Your task to perform on an android device: Open Youtube and go to the subscriptions tab Image 0: 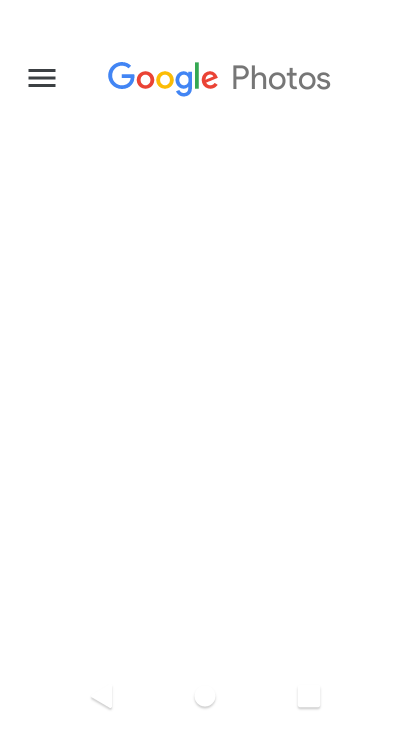
Step 0: press back button
Your task to perform on an android device: Open Youtube and go to the subscriptions tab Image 1: 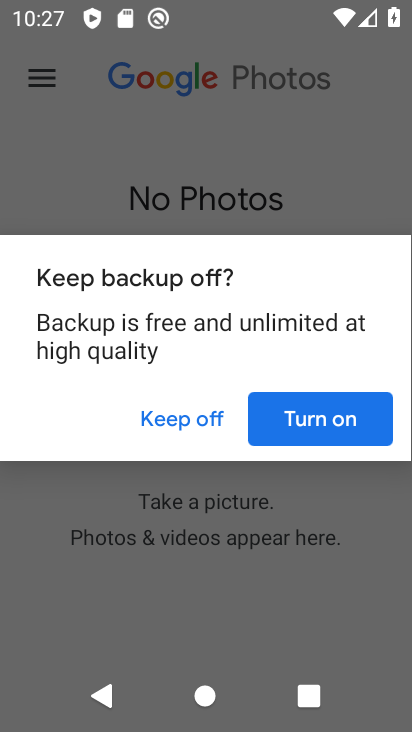
Step 1: press back button
Your task to perform on an android device: Open Youtube and go to the subscriptions tab Image 2: 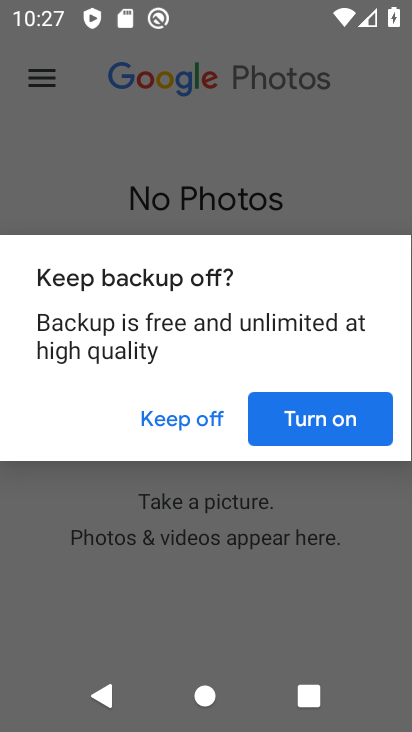
Step 2: press home button
Your task to perform on an android device: Open Youtube and go to the subscriptions tab Image 3: 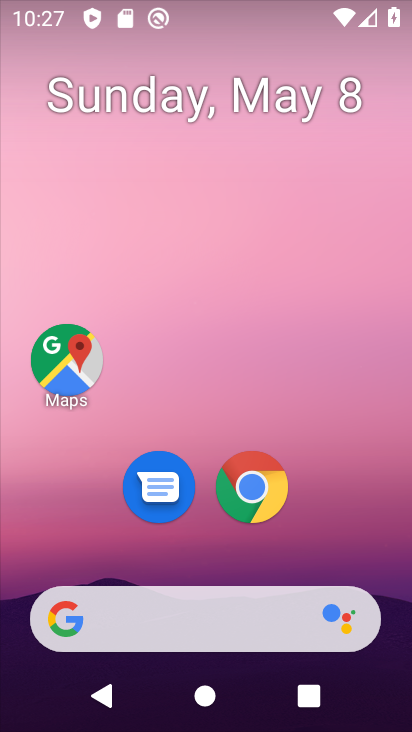
Step 3: drag from (157, 537) to (246, 5)
Your task to perform on an android device: Open Youtube and go to the subscriptions tab Image 4: 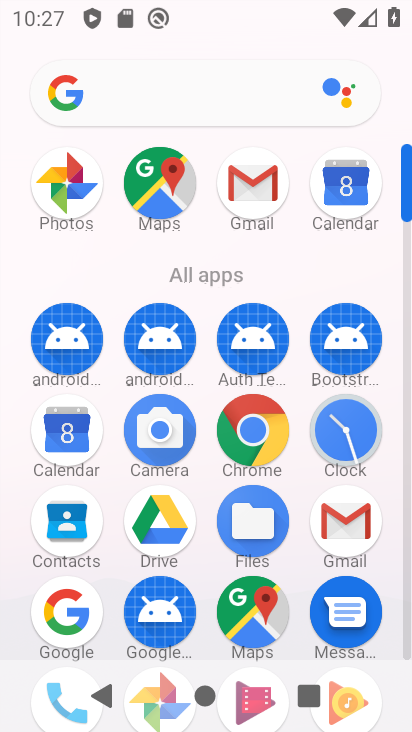
Step 4: drag from (213, 573) to (268, 78)
Your task to perform on an android device: Open Youtube and go to the subscriptions tab Image 5: 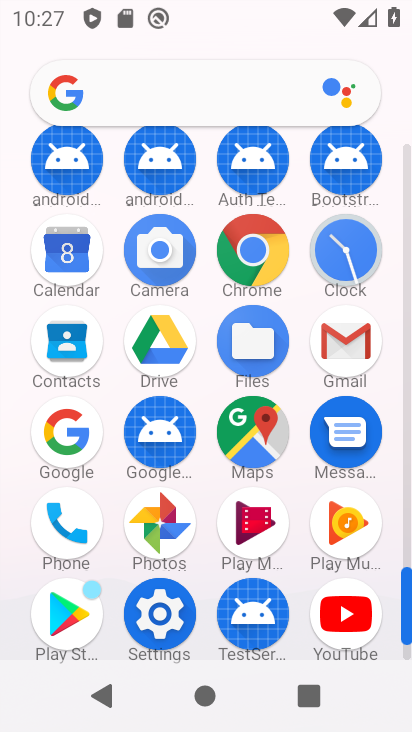
Step 5: click (350, 617)
Your task to perform on an android device: Open Youtube and go to the subscriptions tab Image 6: 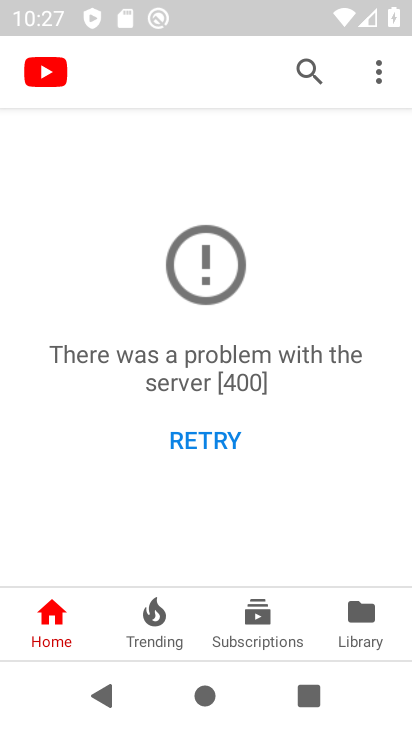
Step 6: click (262, 619)
Your task to perform on an android device: Open Youtube and go to the subscriptions tab Image 7: 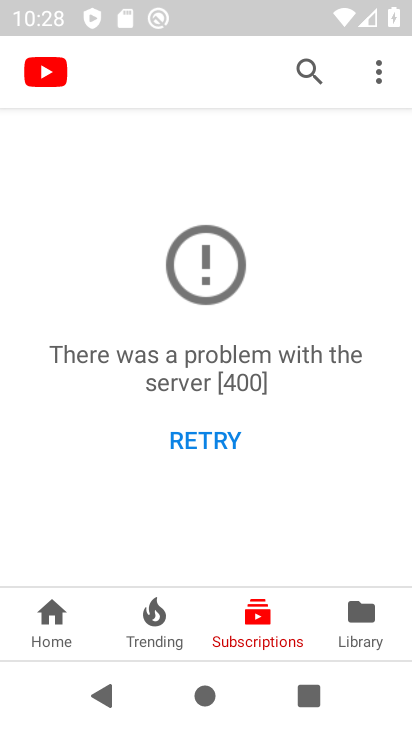
Step 7: task complete